Your task to perform on an android device: check data usage Image 0: 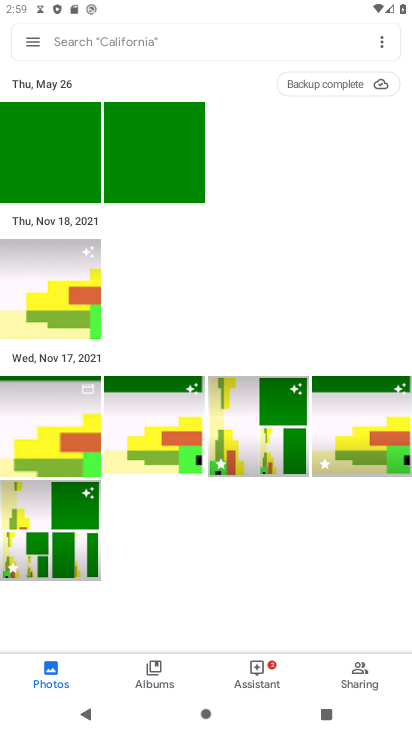
Step 0: press home button
Your task to perform on an android device: check data usage Image 1: 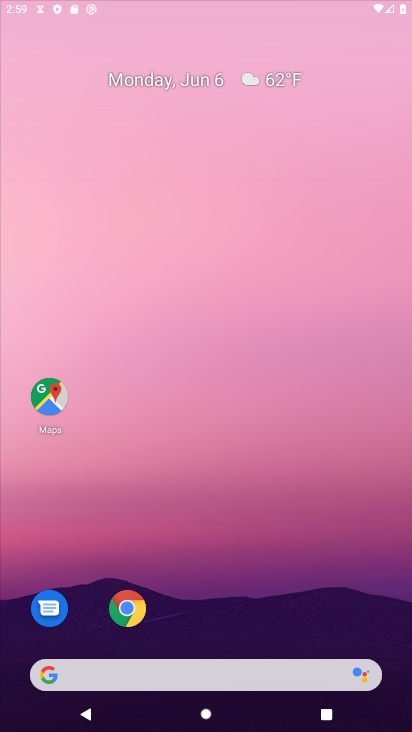
Step 1: drag from (295, 381) to (301, 10)
Your task to perform on an android device: check data usage Image 2: 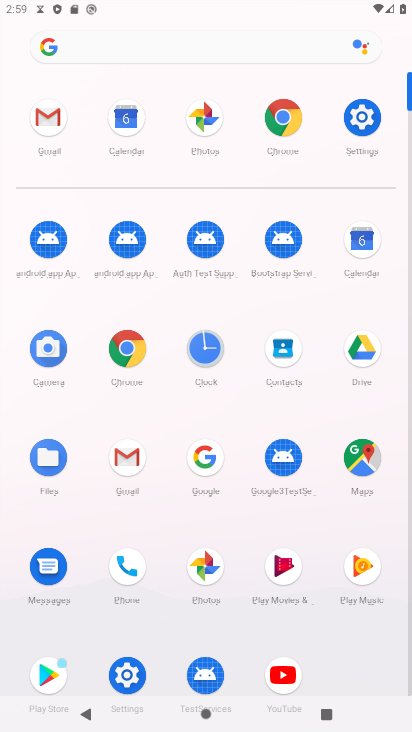
Step 2: click (359, 108)
Your task to perform on an android device: check data usage Image 3: 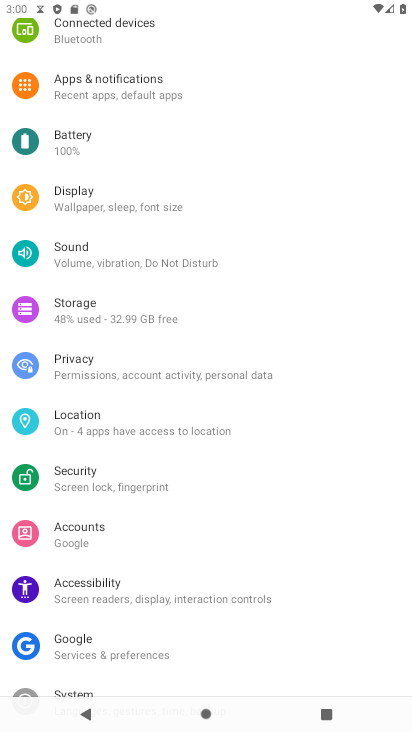
Step 3: drag from (179, 193) to (274, 731)
Your task to perform on an android device: check data usage Image 4: 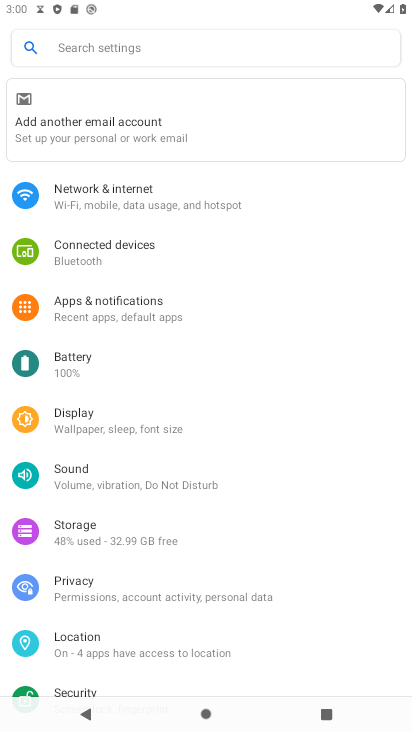
Step 4: click (140, 185)
Your task to perform on an android device: check data usage Image 5: 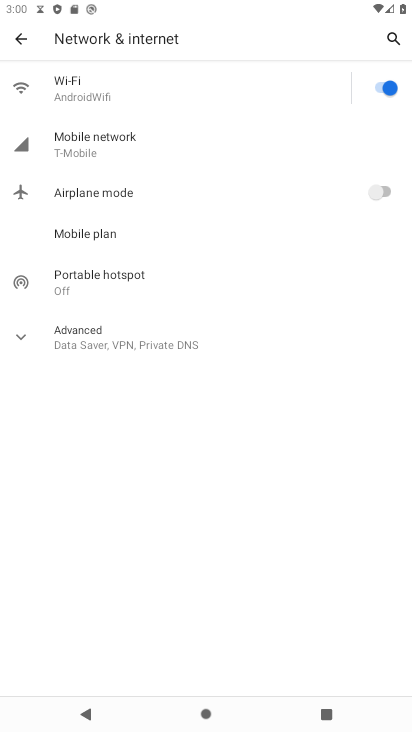
Step 5: click (90, 150)
Your task to perform on an android device: check data usage Image 6: 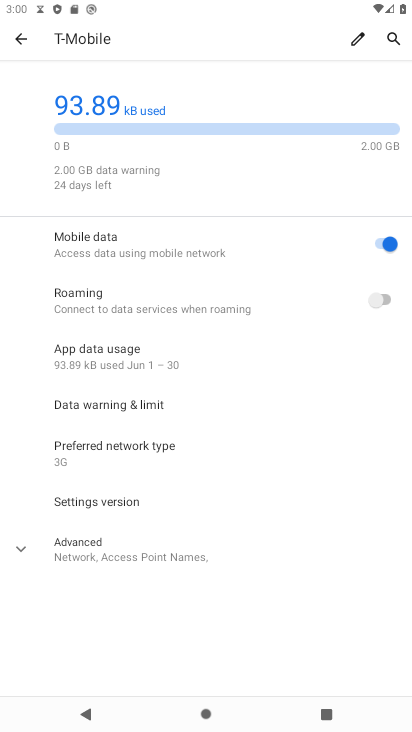
Step 6: click (128, 361)
Your task to perform on an android device: check data usage Image 7: 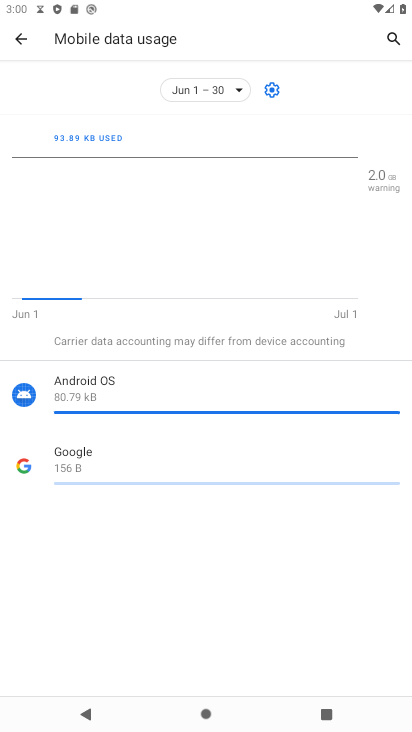
Step 7: task complete